Your task to perform on an android device: Open Google Chrome and open the bookmarks view Image 0: 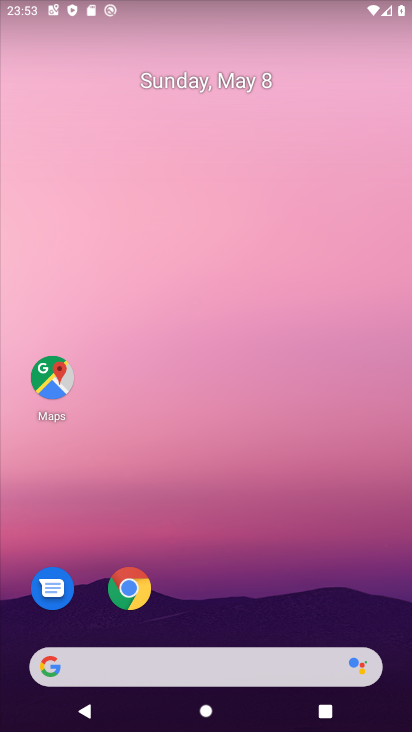
Step 0: click (129, 587)
Your task to perform on an android device: Open Google Chrome and open the bookmarks view Image 1: 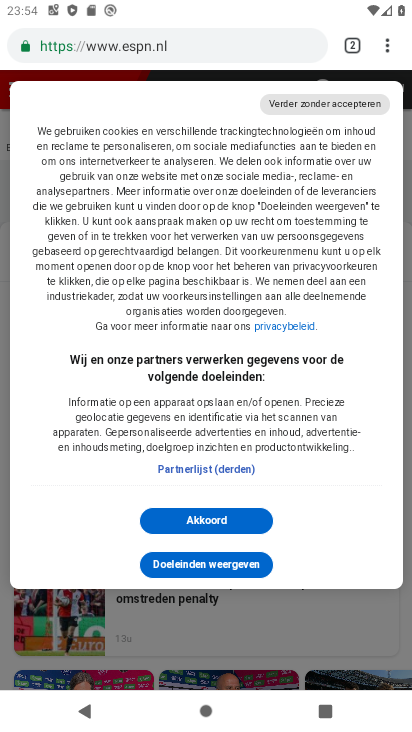
Step 1: click (380, 46)
Your task to perform on an android device: Open Google Chrome and open the bookmarks view Image 2: 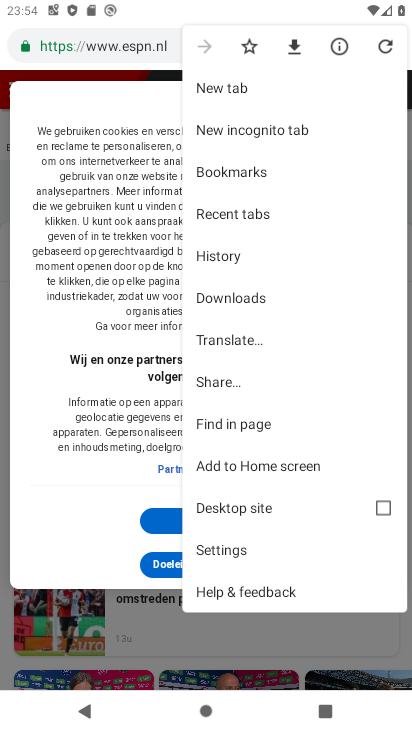
Step 2: click (258, 167)
Your task to perform on an android device: Open Google Chrome and open the bookmarks view Image 3: 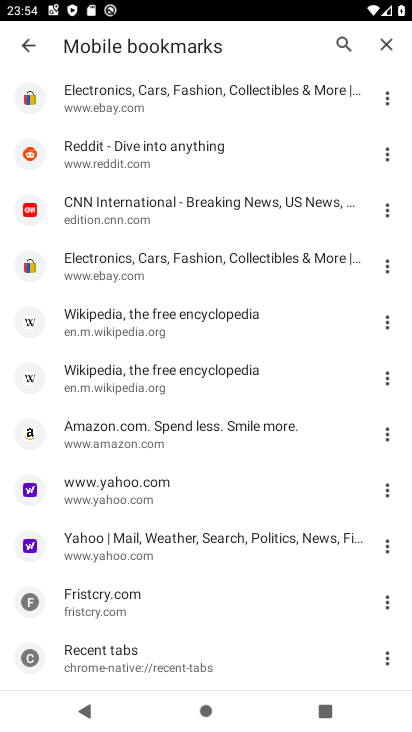
Step 3: click (383, 152)
Your task to perform on an android device: Open Google Chrome and open the bookmarks view Image 4: 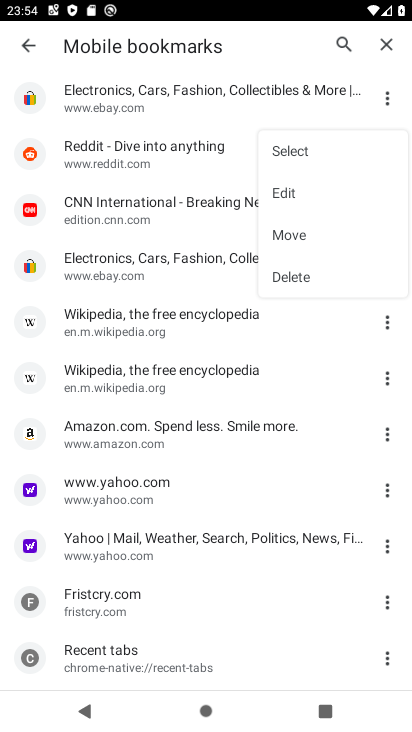
Step 4: click (387, 152)
Your task to perform on an android device: Open Google Chrome and open the bookmarks view Image 5: 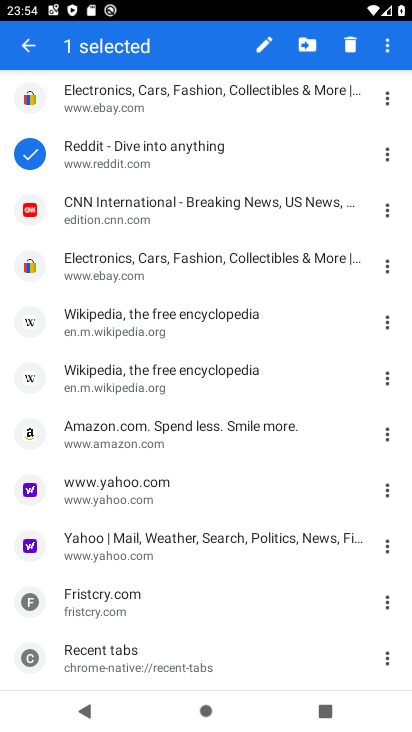
Step 5: click (28, 151)
Your task to perform on an android device: Open Google Chrome and open the bookmarks view Image 6: 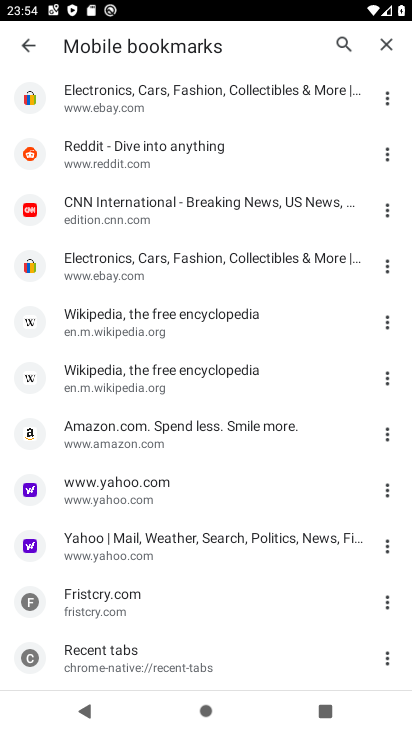
Step 6: click (387, 147)
Your task to perform on an android device: Open Google Chrome and open the bookmarks view Image 7: 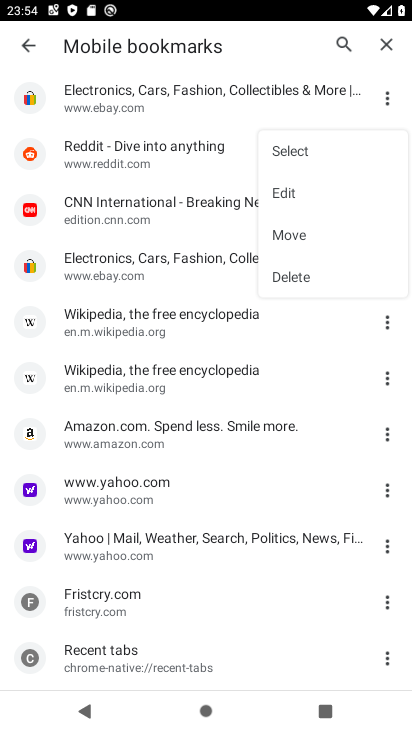
Step 7: click (288, 191)
Your task to perform on an android device: Open Google Chrome and open the bookmarks view Image 8: 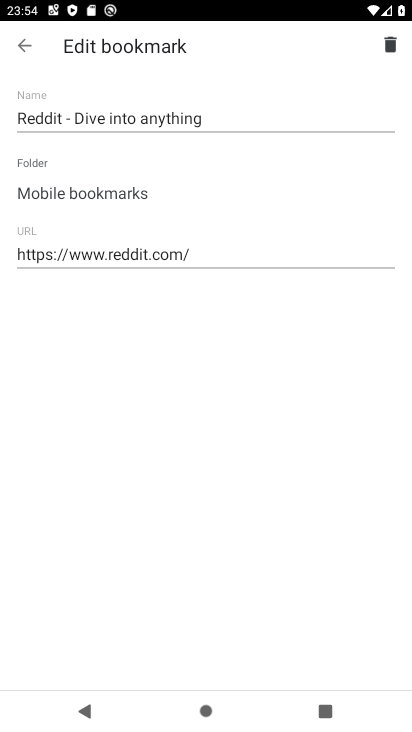
Step 8: task complete